Your task to perform on an android device: Open internet settings Image 0: 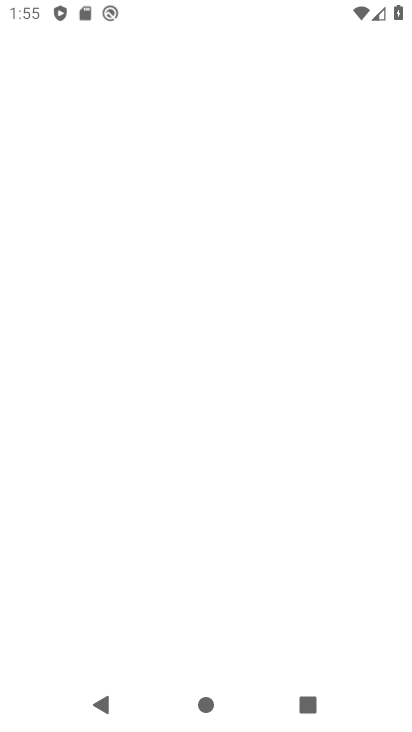
Step 0: press home button
Your task to perform on an android device: Open internet settings Image 1: 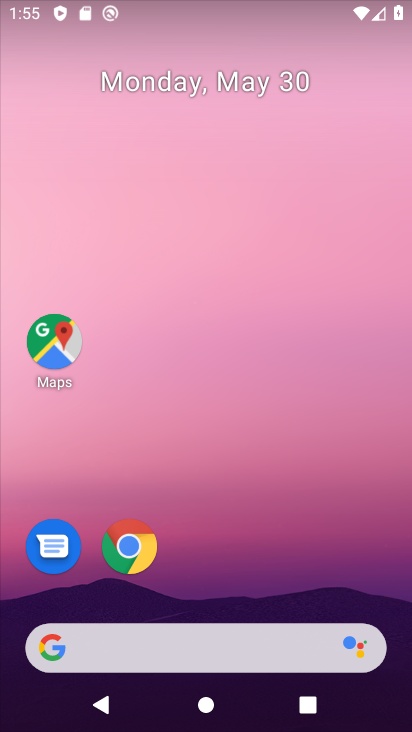
Step 1: drag from (202, 582) to (219, 38)
Your task to perform on an android device: Open internet settings Image 2: 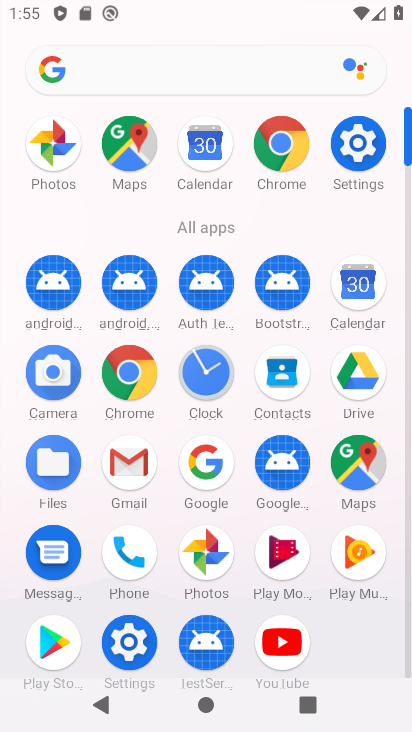
Step 2: click (353, 138)
Your task to perform on an android device: Open internet settings Image 3: 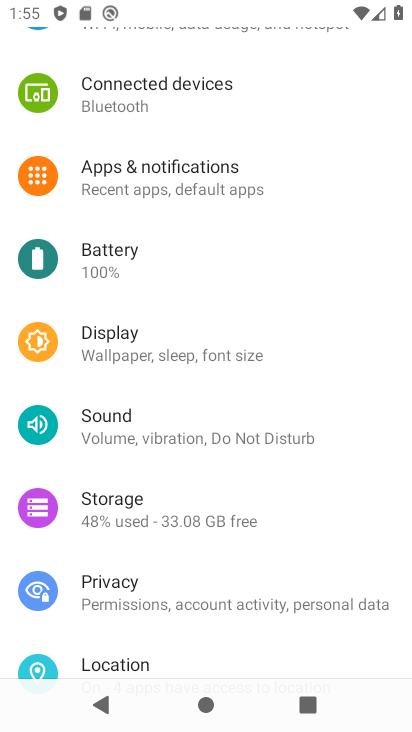
Step 3: drag from (150, 163) to (184, 601)
Your task to perform on an android device: Open internet settings Image 4: 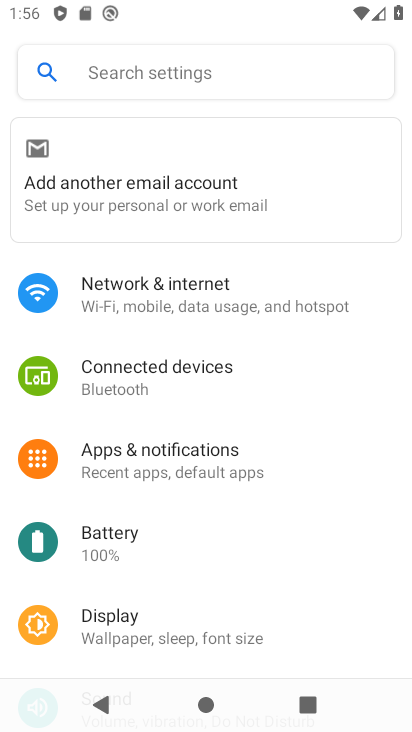
Step 4: click (188, 268)
Your task to perform on an android device: Open internet settings Image 5: 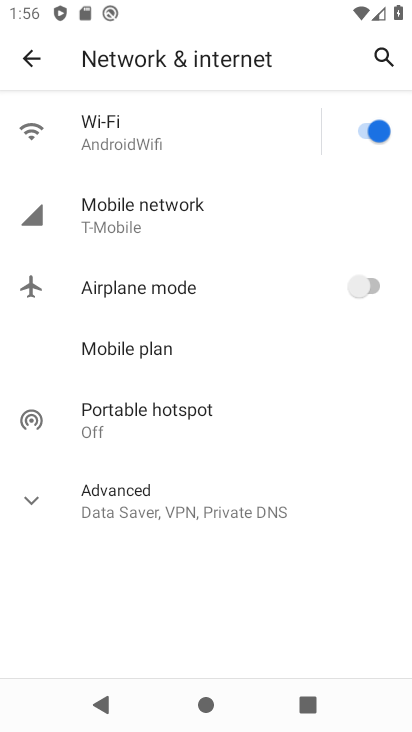
Step 5: click (46, 500)
Your task to perform on an android device: Open internet settings Image 6: 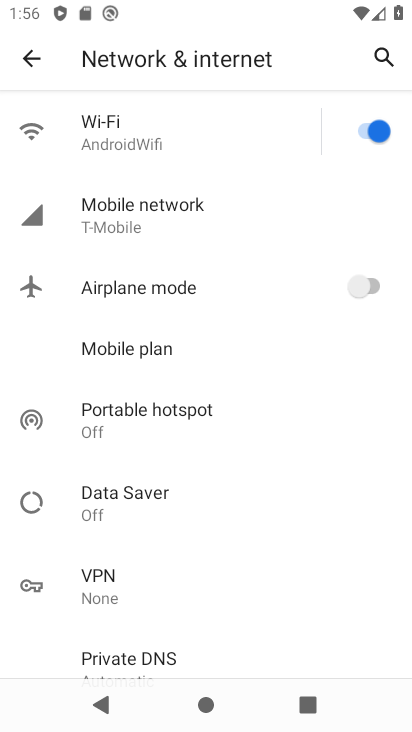
Step 6: drag from (172, 393) to (201, 169)
Your task to perform on an android device: Open internet settings Image 7: 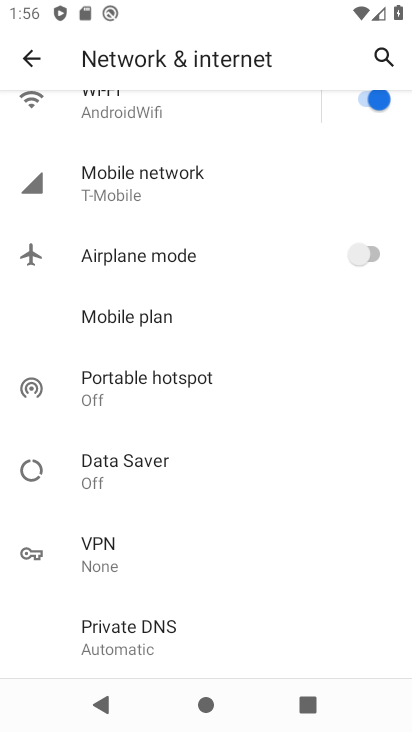
Step 7: click (207, 358)
Your task to perform on an android device: Open internet settings Image 8: 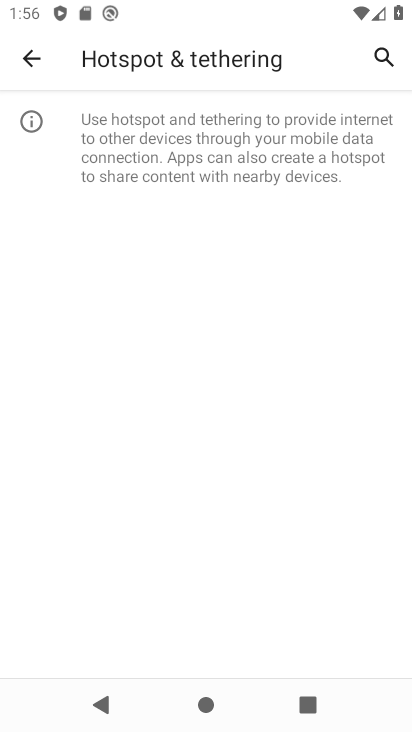
Step 8: task complete